Your task to perform on an android device: When is my next appointment? Image 0: 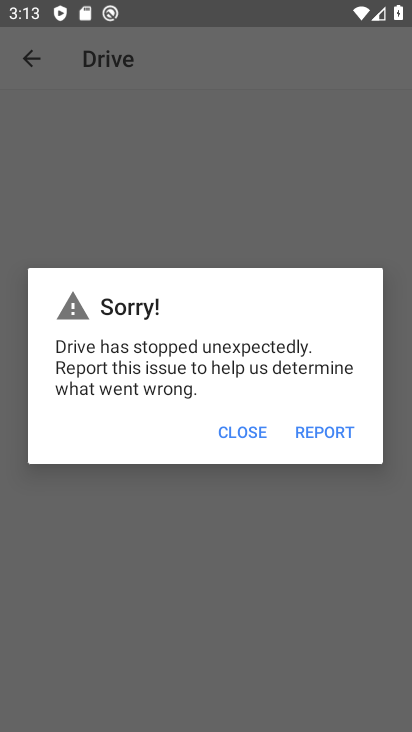
Step 0: press home button
Your task to perform on an android device: When is my next appointment? Image 1: 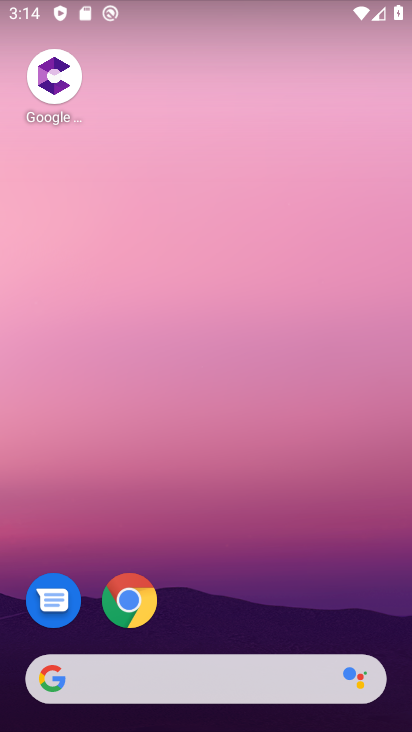
Step 1: drag from (356, 348) to (342, 100)
Your task to perform on an android device: When is my next appointment? Image 2: 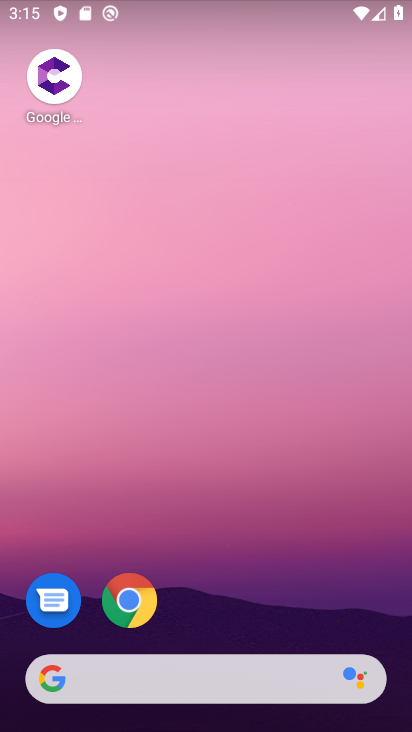
Step 2: drag from (285, 519) to (272, 246)
Your task to perform on an android device: When is my next appointment? Image 3: 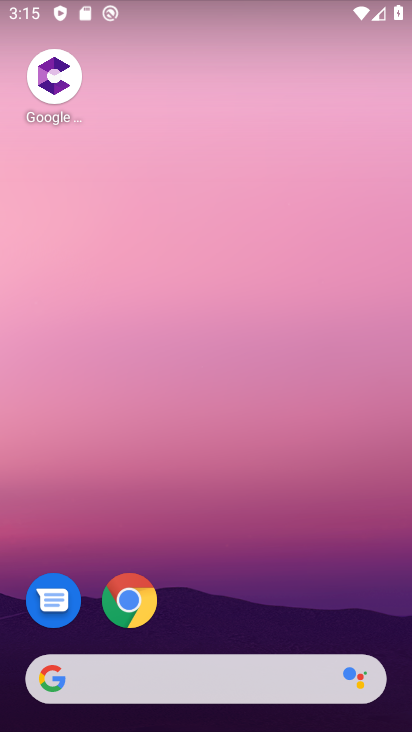
Step 3: drag from (338, 516) to (304, 202)
Your task to perform on an android device: When is my next appointment? Image 4: 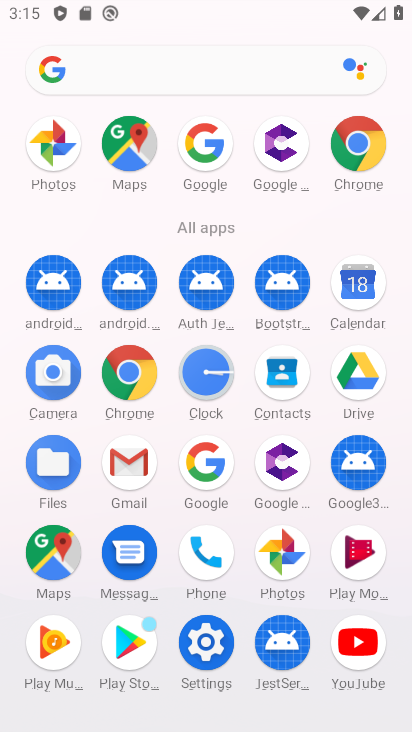
Step 4: click (359, 298)
Your task to perform on an android device: When is my next appointment? Image 5: 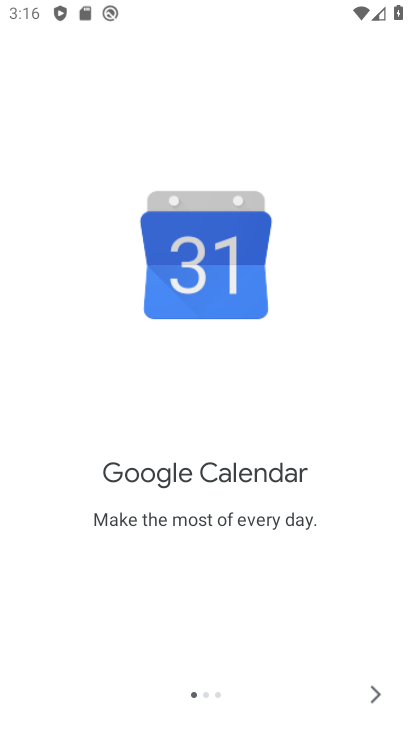
Step 5: click (368, 679)
Your task to perform on an android device: When is my next appointment? Image 6: 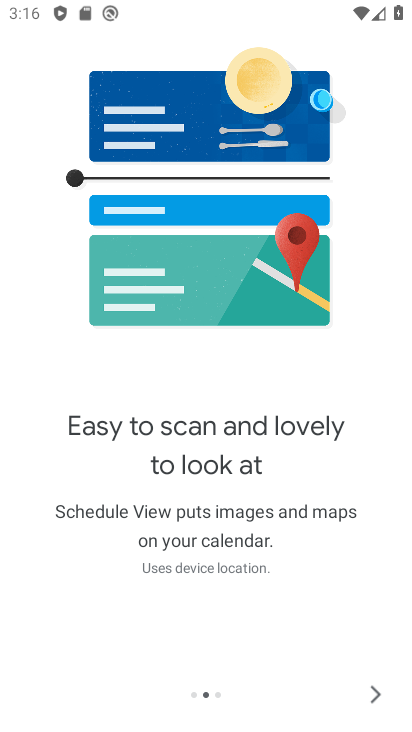
Step 6: click (369, 680)
Your task to perform on an android device: When is my next appointment? Image 7: 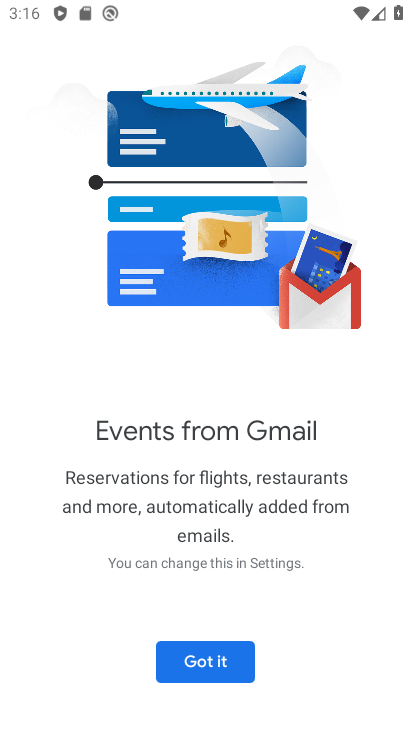
Step 7: click (177, 661)
Your task to perform on an android device: When is my next appointment? Image 8: 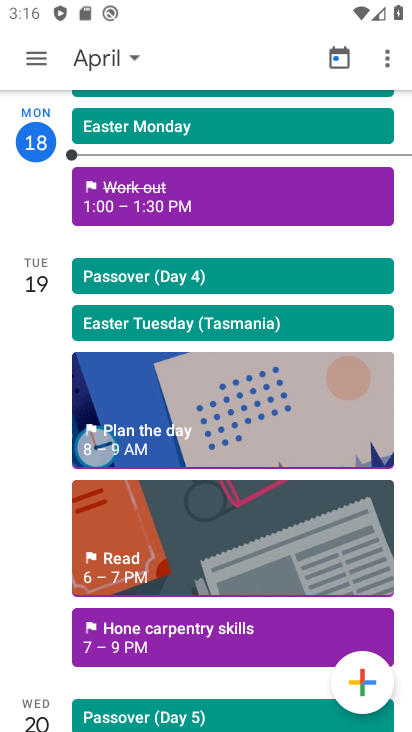
Step 8: click (38, 44)
Your task to perform on an android device: When is my next appointment? Image 9: 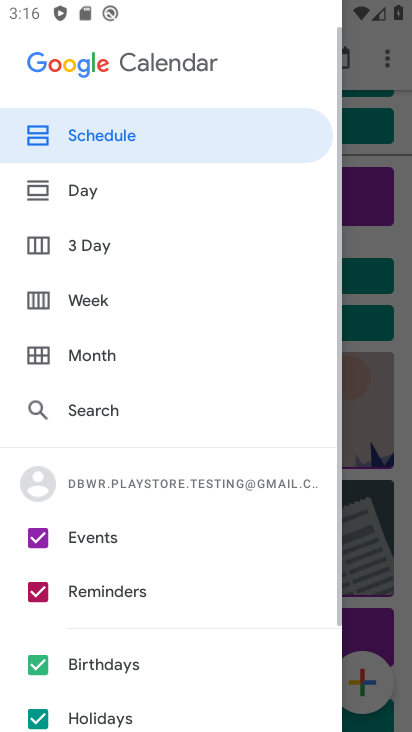
Step 9: click (36, 714)
Your task to perform on an android device: When is my next appointment? Image 10: 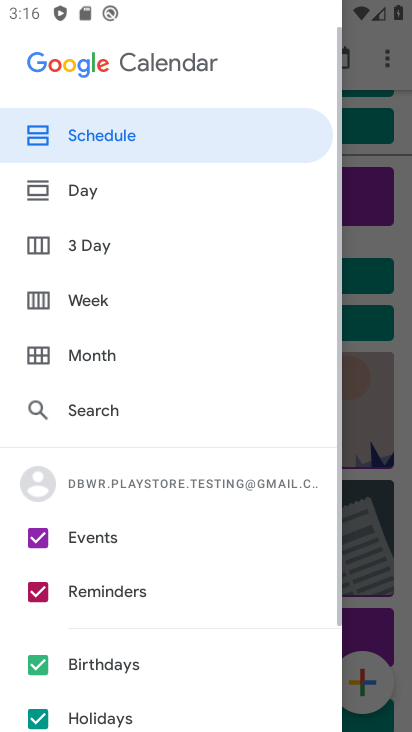
Step 10: click (37, 662)
Your task to perform on an android device: When is my next appointment? Image 11: 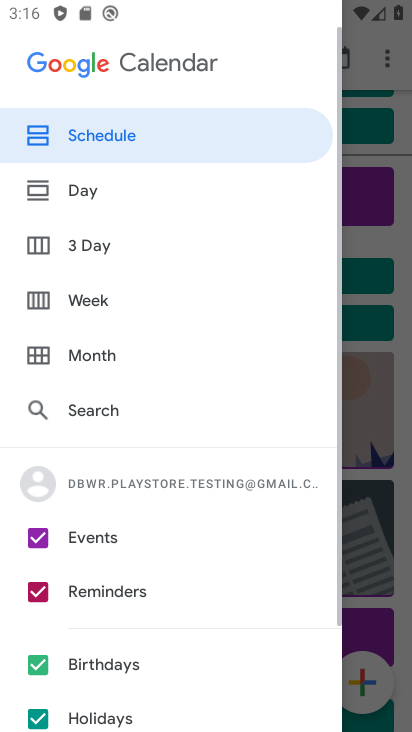
Step 11: click (48, 593)
Your task to perform on an android device: When is my next appointment? Image 12: 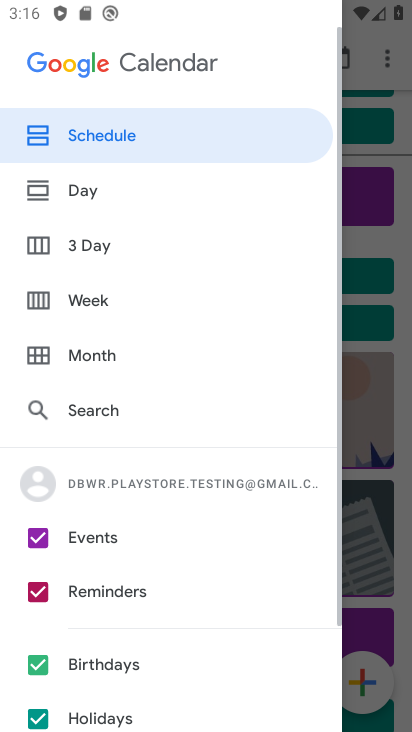
Step 12: click (39, 596)
Your task to perform on an android device: When is my next appointment? Image 13: 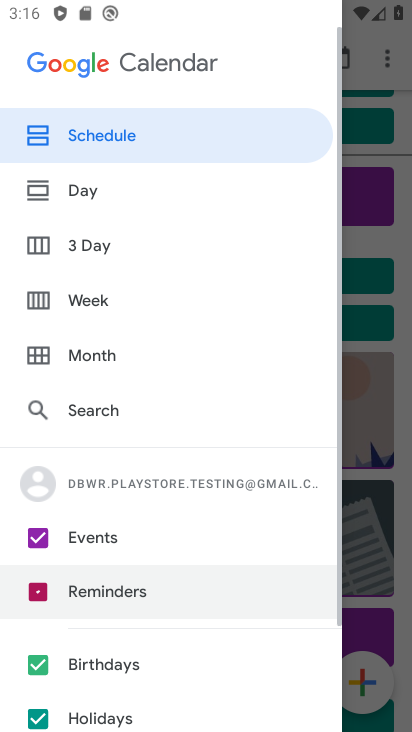
Step 13: click (41, 669)
Your task to perform on an android device: When is my next appointment? Image 14: 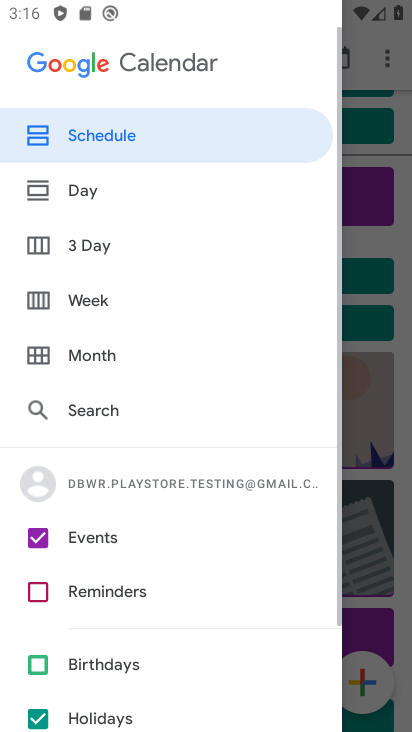
Step 14: click (38, 722)
Your task to perform on an android device: When is my next appointment? Image 15: 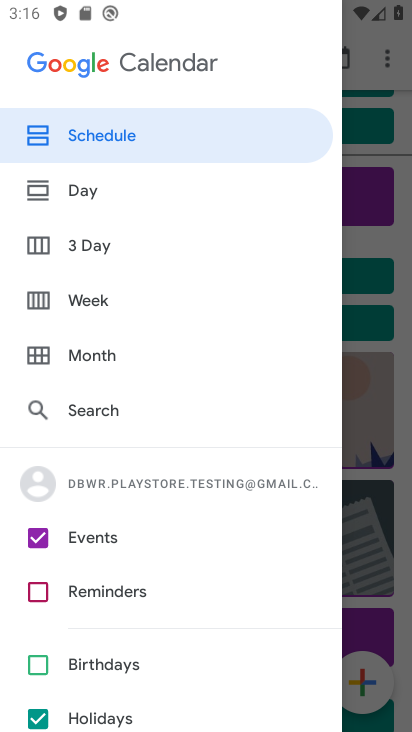
Step 15: click (41, 709)
Your task to perform on an android device: When is my next appointment? Image 16: 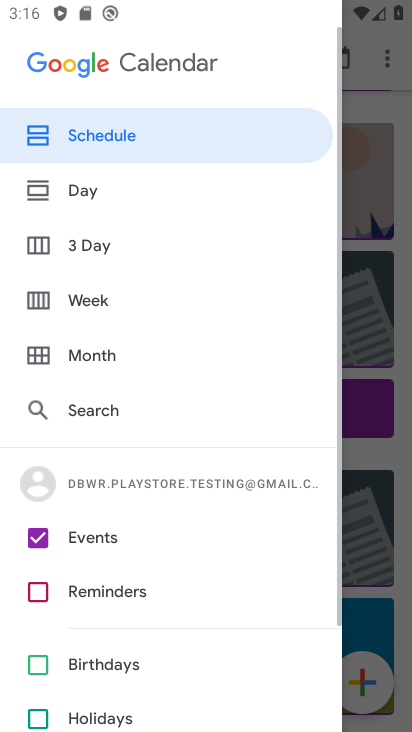
Step 16: task complete